Your task to perform on an android device: open a bookmark in the chrome app Image 0: 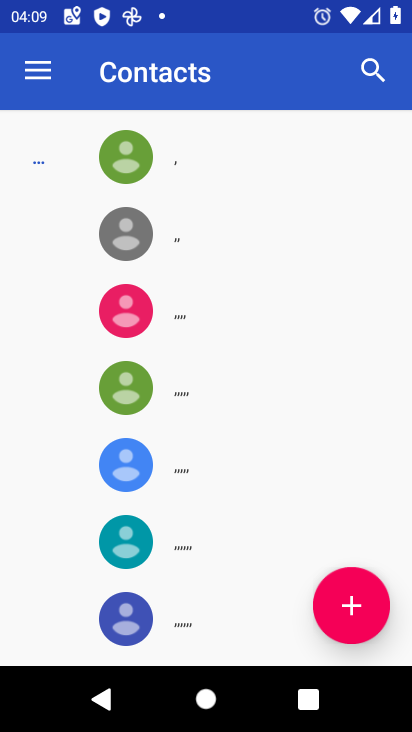
Step 0: press home button
Your task to perform on an android device: open a bookmark in the chrome app Image 1: 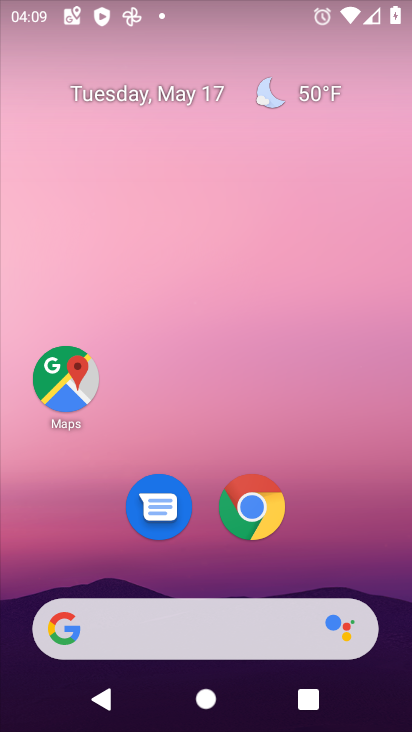
Step 1: click (246, 519)
Your task to perform on an android device: open a bookmark in the chrome app Image 2: 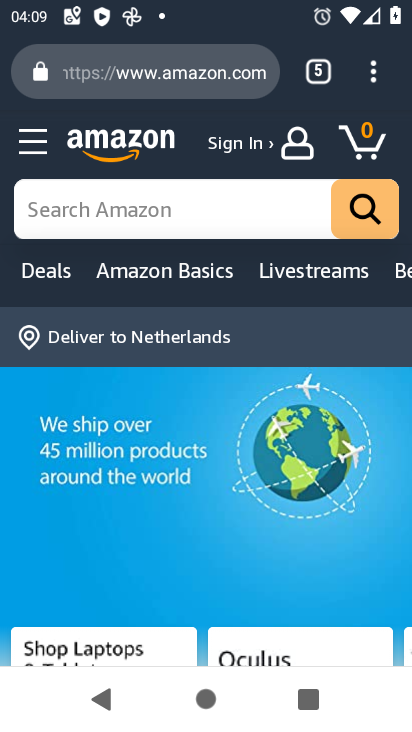
Step 2: click (383, 73)
Your task to perform on an android device: open a bookmark in the chrome app Image 3: 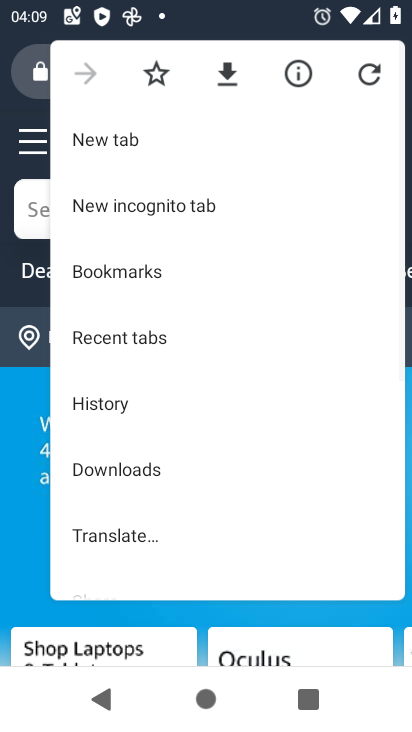
Step 3: click (151, 281)
Your task to perform on an android device: open a bookmark in the chrome app Image 4: 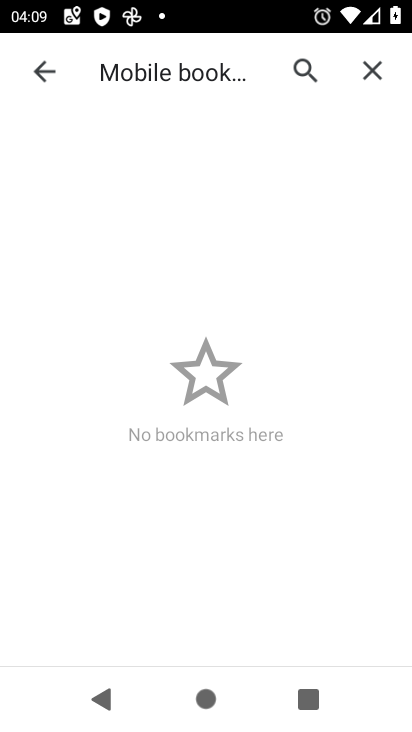
Step 4: task complete